Your task to perform on an android device: turn notification dots off Image 0: 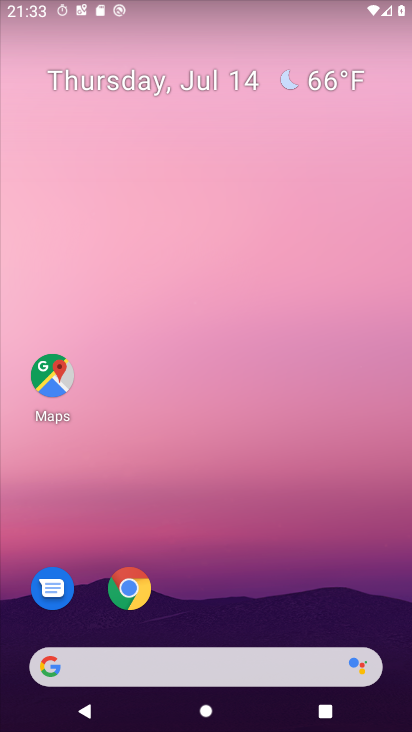
Step 0: drag from (345, 580) to (354, 46)
Your task to perform on an android device: turn notification dots off Image 1: 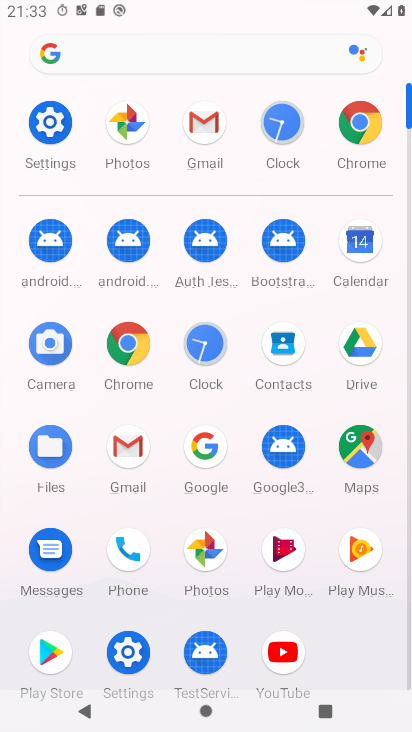
Step 1: click (43, 120)
Your task to perform on an android device: turn notification dots off Image 2: 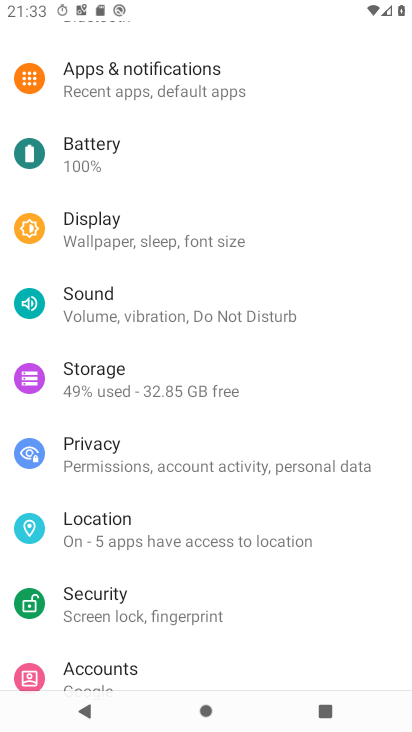
Step 2: drag from (368, 423) to (371, 274)
Your task to perform on an android device: turn notification dots off Image 3: 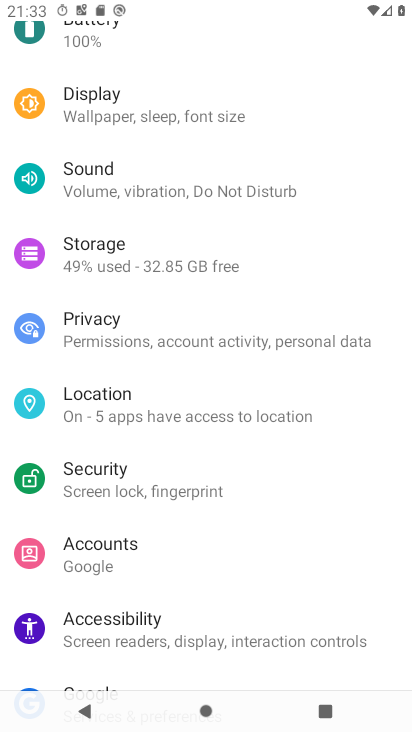
Step 3: drag from (366, 496) to (363, 363)
Your task to perform on an android device: turn notification dots off Image 4: 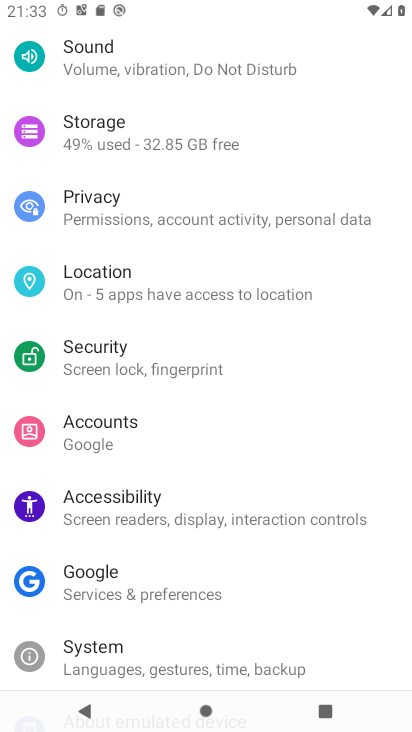
Step 4: drag from (362, 595) to (361, 460)
Your task to perform on an android device: turn notification dots off Image 5: 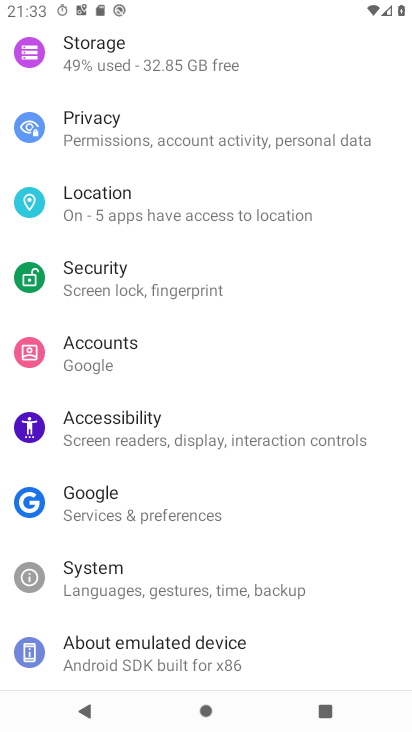
Step 5: drag from (352, 321) to (339, 484)
Your task to perform on an android device: turn notification dots off Image 6: 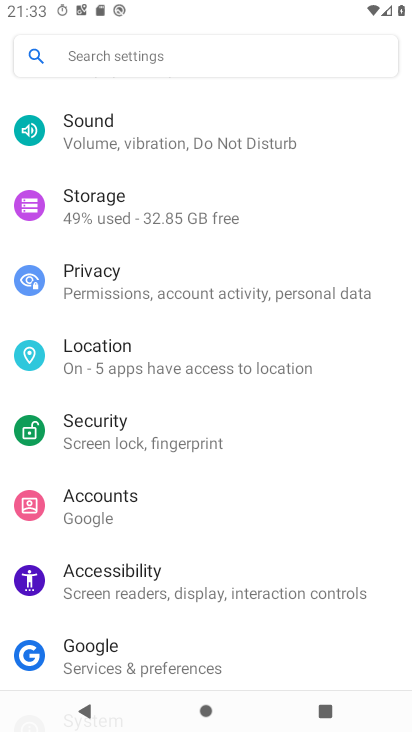
Step 6: drag from (339, 254) to (335, 423)
Your task to perform on an android device: turn notification dots off Image 7: 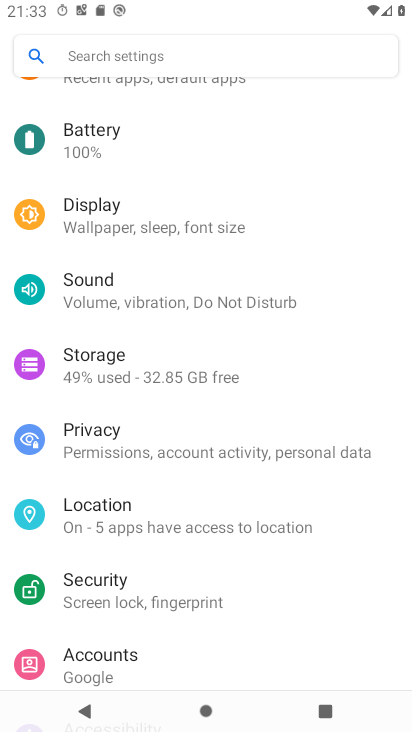
Step 7: drag from (345, 272) to (342, 377)
Your task to perform on an android device: turn notification dots off Image 8: 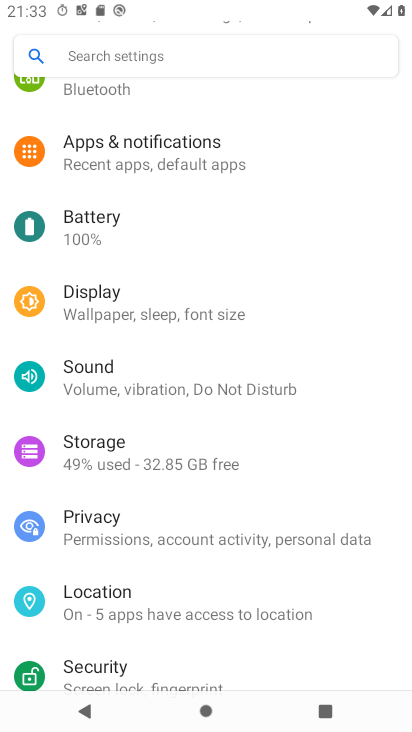
Step 8: drag from (343, 276) to (345, 367)
Your task to perform on an android device: turn notification dots off Image 9: 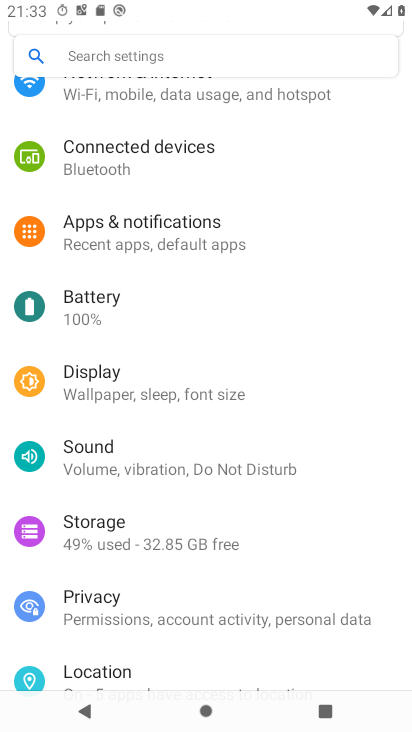
Step 9: drag from (336, 272) to (335, 382)
Your task to perform on an android device: turn notification dots off Image 10: 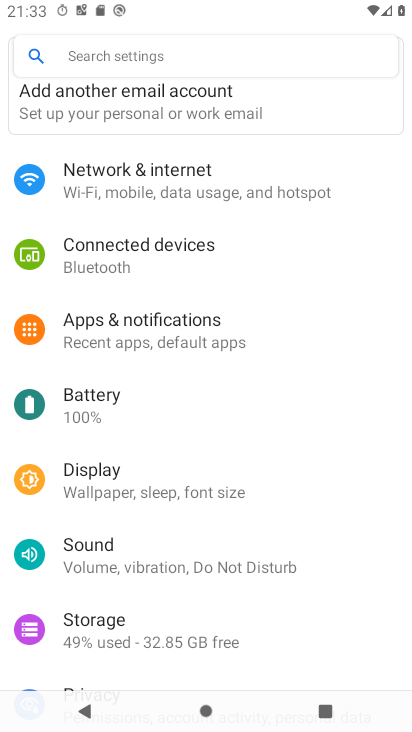
Step 10: drag from (329, 274) to (318, 380)
Your task to perform on an android device: turn notification dots off Image 11: 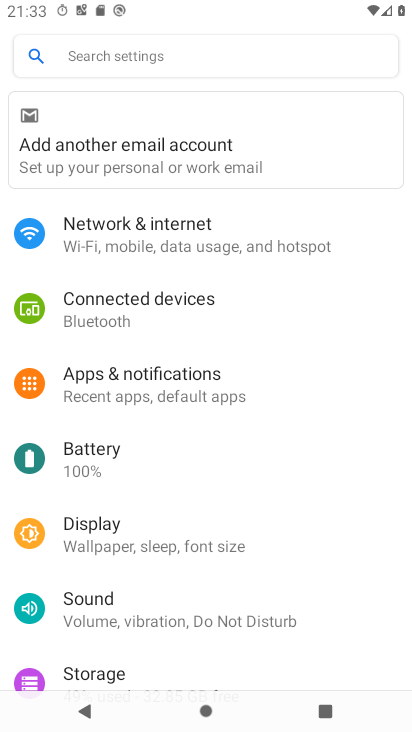
Step 11: click (228, 383)
Your task to perform on an android device: turn notification dots off Image 12: 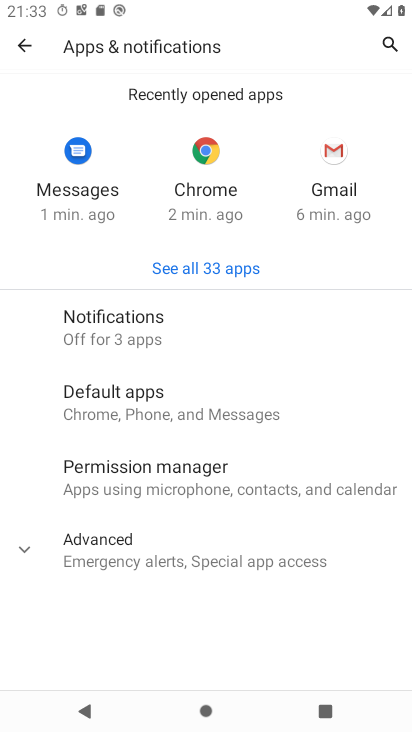
Step 12: click (167, 325)
Your task to perform on an android device: turn notification dots off Image 13: 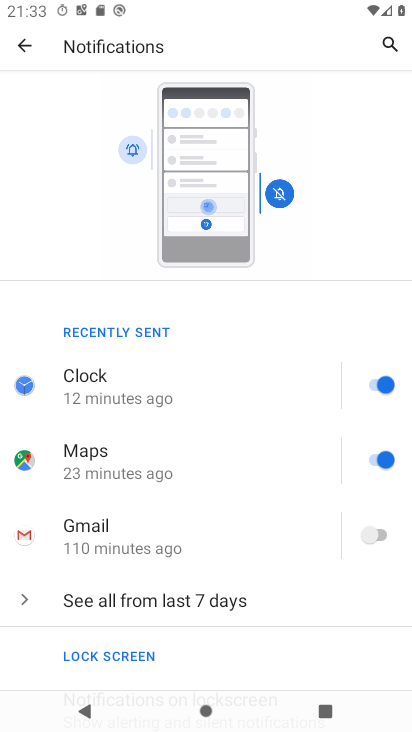
Step 13: drag from (281, 476) to (288, 417)
Your task to perform on an android device: turn notification dots off Image 14: 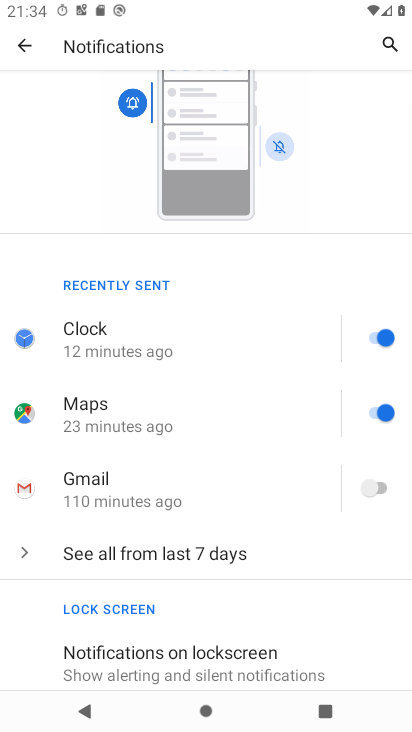
Step 14: drag from (292, 522) to (294, 440)
Your task to perform on an android device: turn notification dots off Image 15: 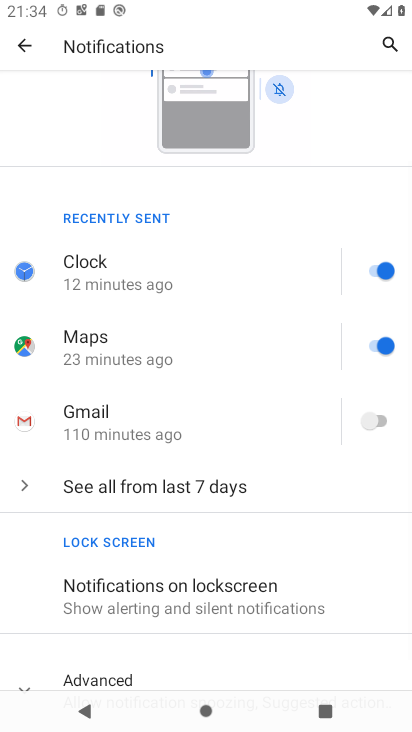
Step 15: drag from (296, 540) to (296, 455)
Your task to perform on an android device: turn notification dots off Image 16: 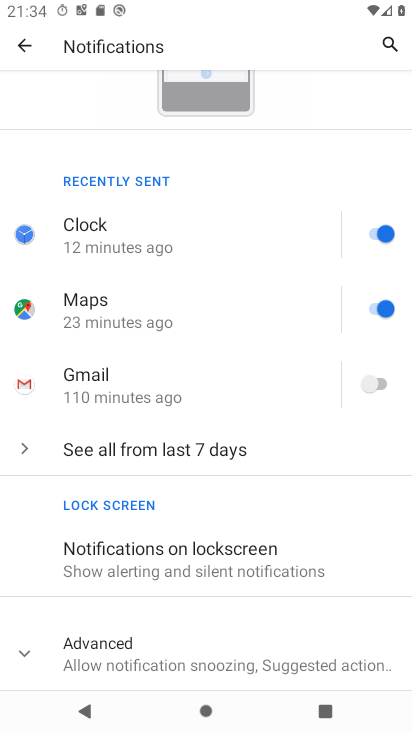
Step 16: click (261, 650)
Your task to perform on an android device: turn notification dots off Image 17: 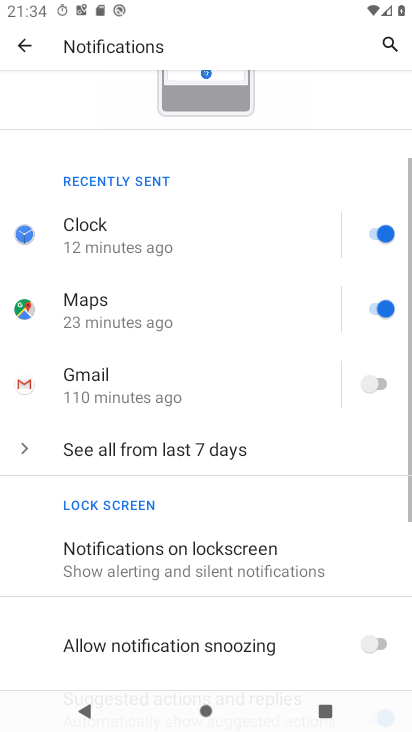
Step 17: task complete